Your task to perform on an android device: What is the news today? Image 0: 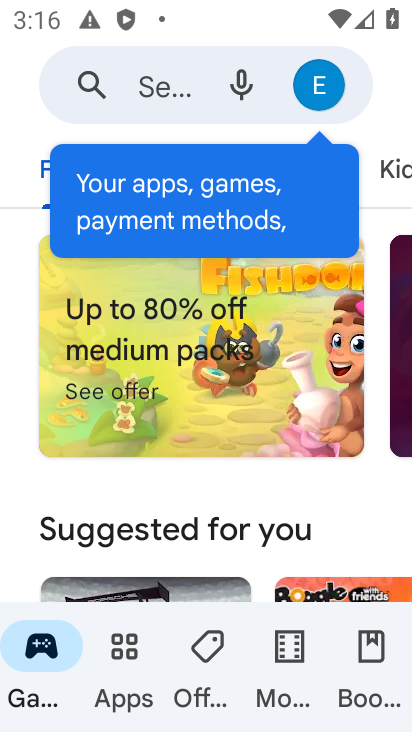
Step 0: press home button
Your task to perform on an android device: What is the news today? Image 1: 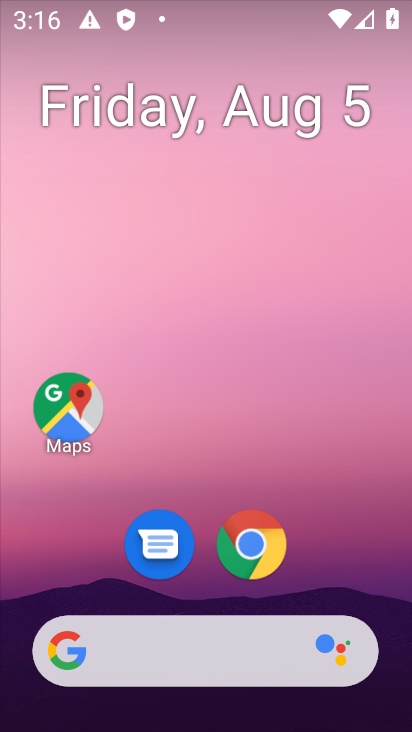
Step 1: drag from (222, 600) to (238, 199)
Your task to perform on an android device: What is the news today? Image 2: 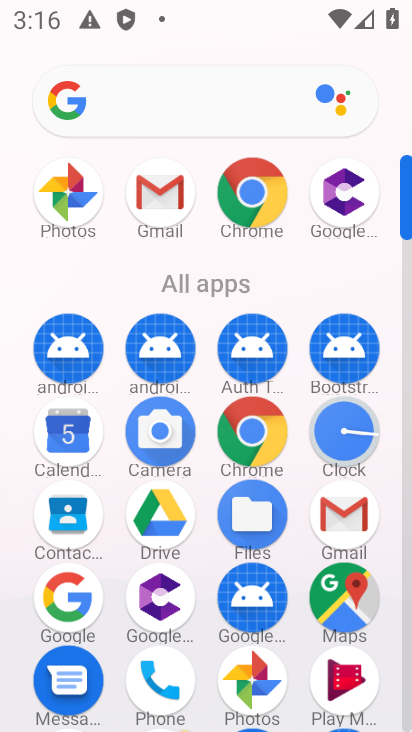
Step 2: click (63, 600)
Your task to perform on an android device: What is the news today? Image 3: 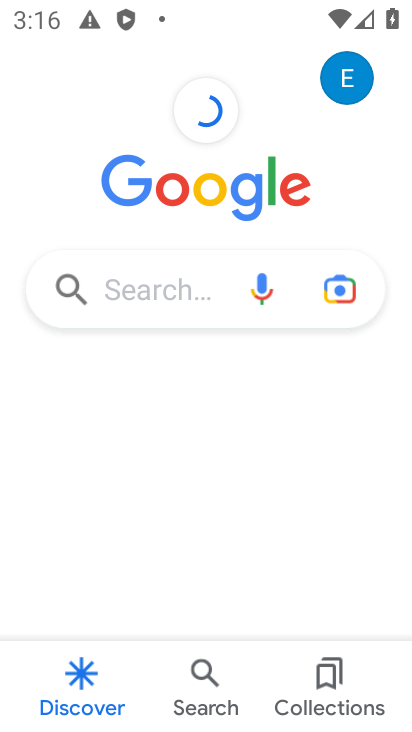
Step 3: click (166, 300)
Your task to perform on an android device: What is the news today? Image 4: 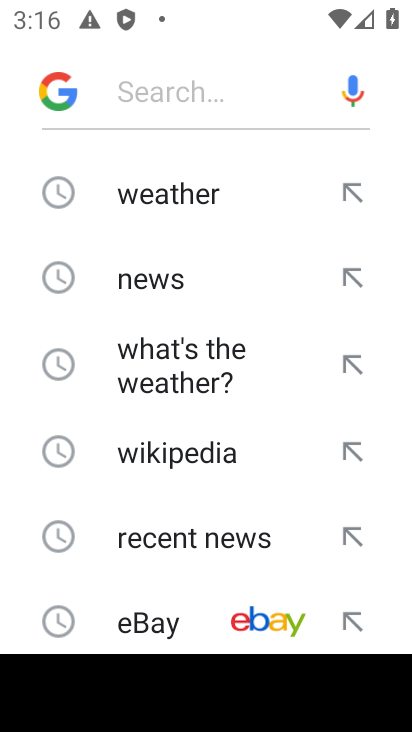
Step 4: click (154, 270)
Your task to perform on an android device: What is the news today? Image 5: 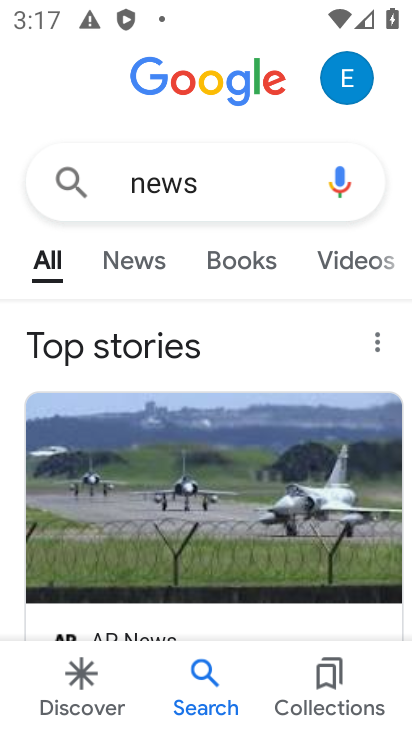
Step 5: task complete